Your task to perform on an android device: Open settings on Google Maps Image 0: 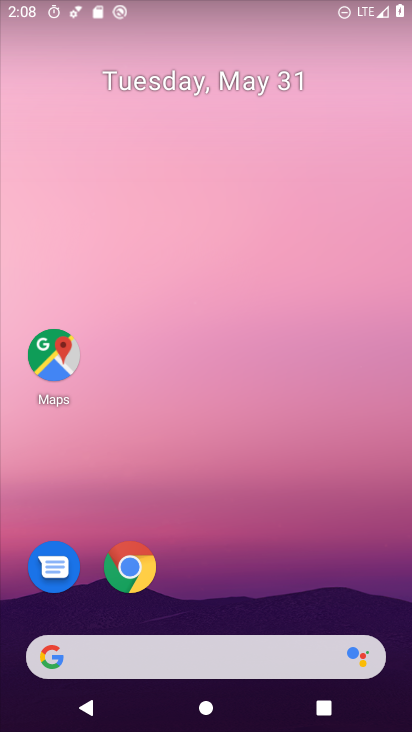
Step 0: click (66, 370)
Your task to perform on an android device: Open settings on Google Maps Image 1: 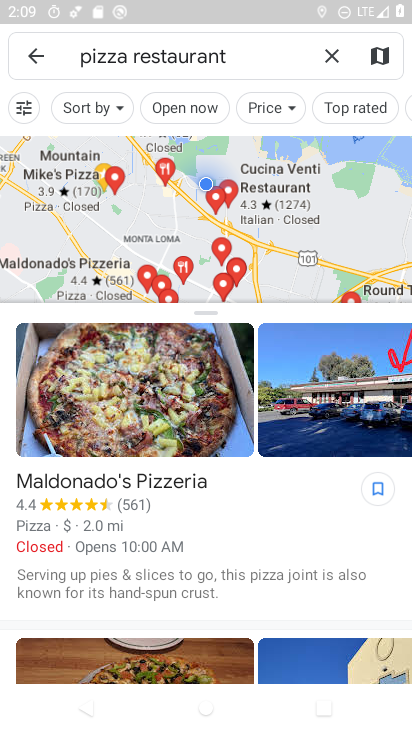
Step 1: task complete